Your task to perform on an android device: open chrome privacy settings Image 0: 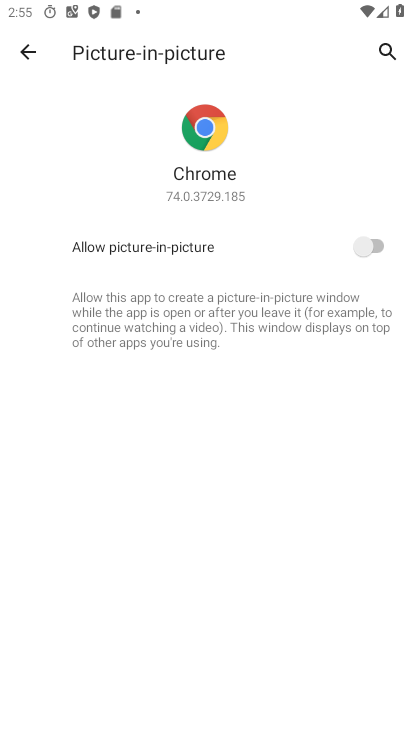
Step 0: press home button
Your task to perform on an android device: open chrome privacy settings Image 1: 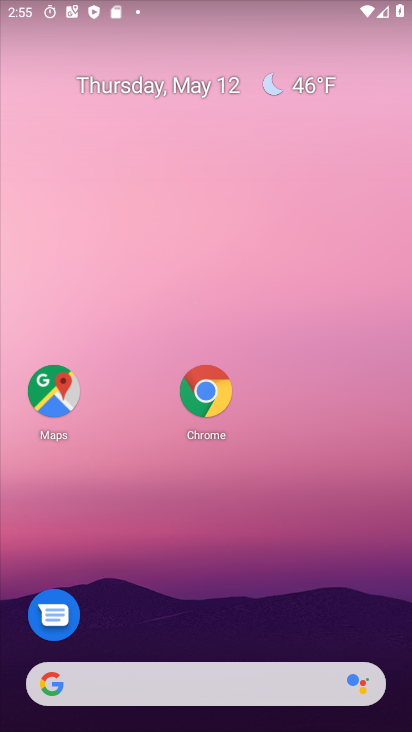
Step 1: drag from (193, 540) to (199, 8)
Your task to perform on an android device: open chrome privacy settings Image 2: 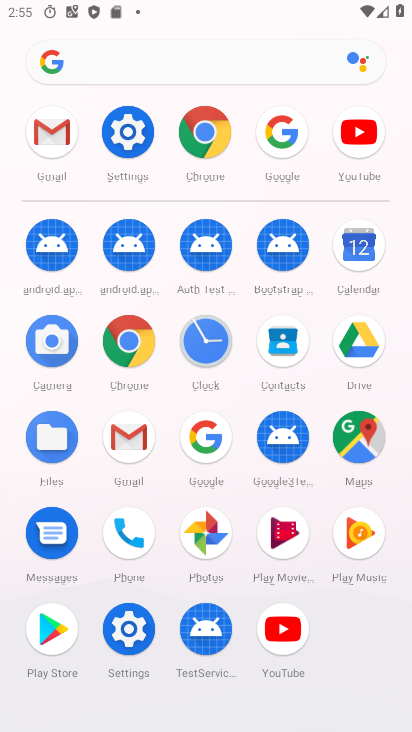
Step 2: click (206, 134)
Your task to perform on an android device: open chrome privacy settings Image 3: 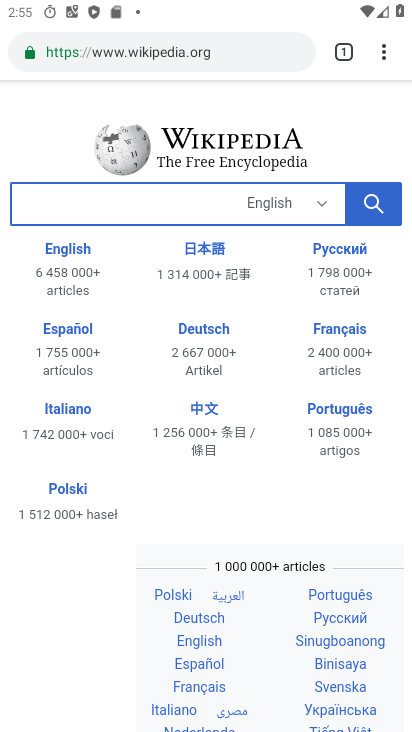
Step 3: click (374, 45)
Your task to perform on an android device: open chrome privacy settings Image 4: 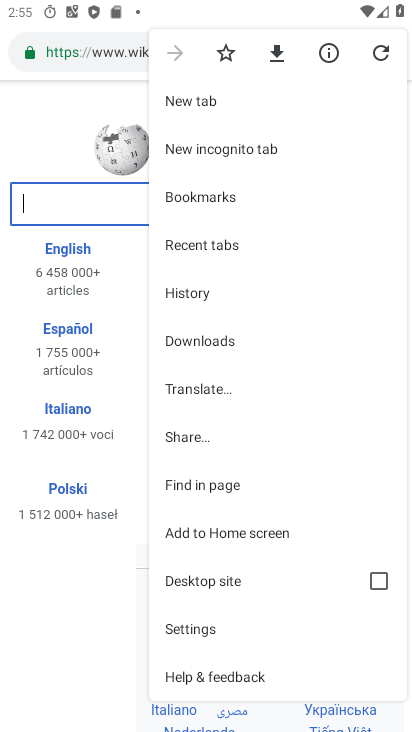
Step 4: click (220, 622)
Your task to perform on an android device: open chrome privacy settings Image 5: 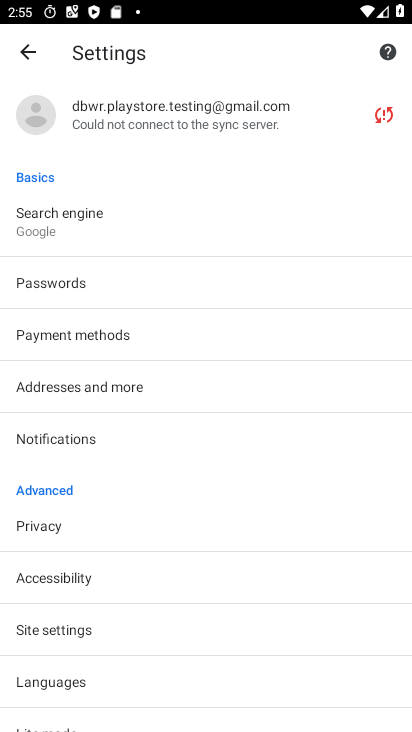
Step 5: click (80, 515)
Your task to perform on an android device: open chrome privacy settings Image 6: 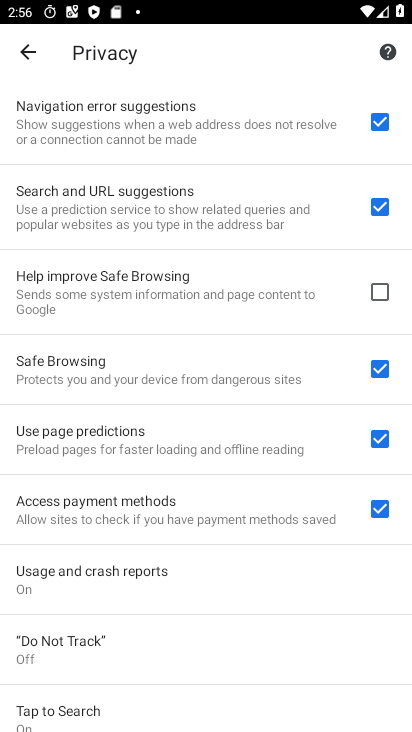
Step 6: task complete